Your task to perform on an android device: change alarm snooze length Image 0: 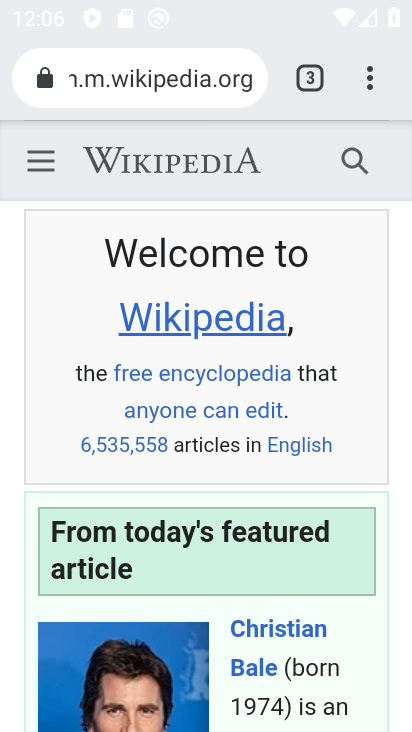
Step 0: press home button
Your task to perform on an android device: change alarm snooze length Image 1: 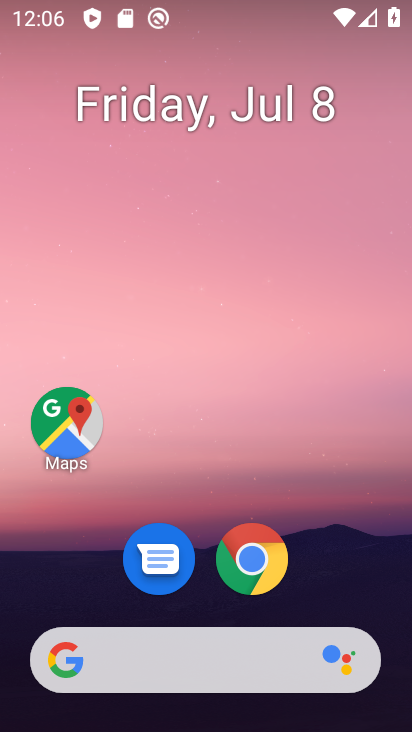
Step 1: drag from (209, 635) to (322, 6)
Your task to perform on an android device: change alarm snooze length Image 2: 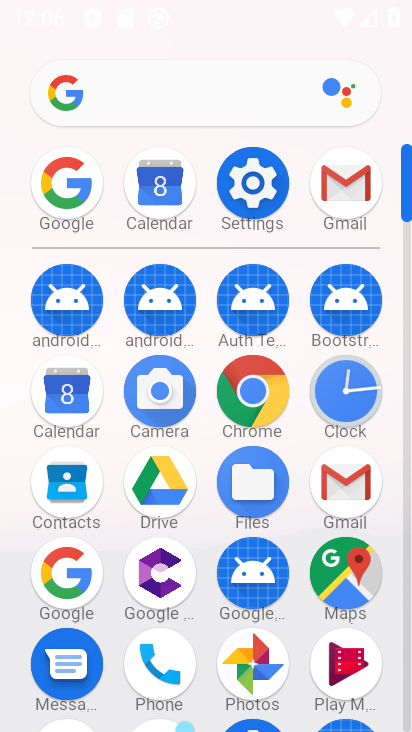
Step 2: click (348, 395)
Your task to perform on an android device: change alarm snooze length Image 3: 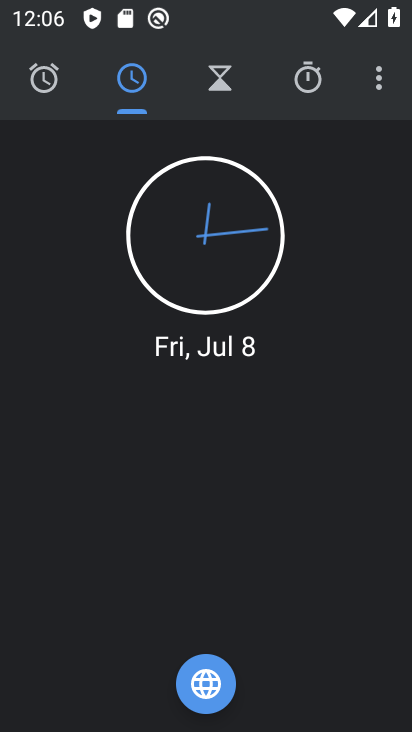
Step 3: click (373, 80)
Your task to perform on an android device: change alarm snooze length Image 4: 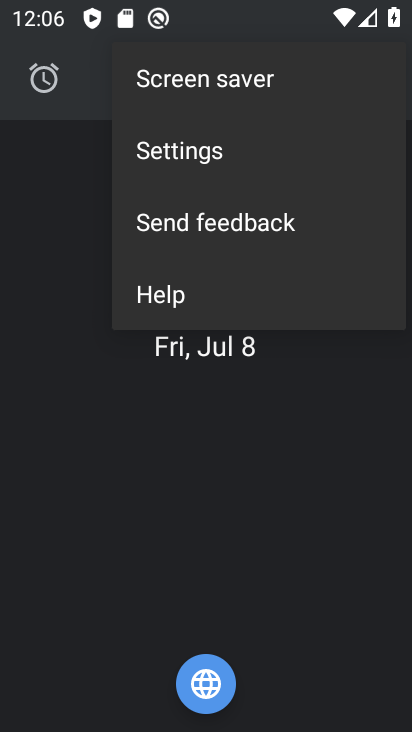
Step 4: click (178, 157)
Your task to perform on an android device: change alarm snooze length Image 5: 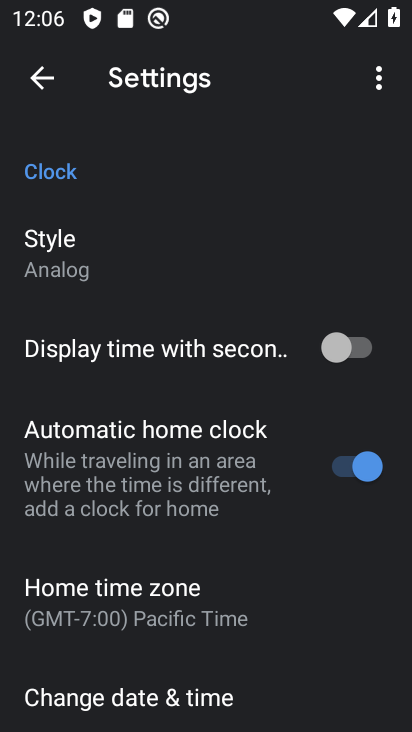
Step 5: drag from (227, 573) to (226, 193)
Your task to perform on an android device: change alarm snooze length Image 6: 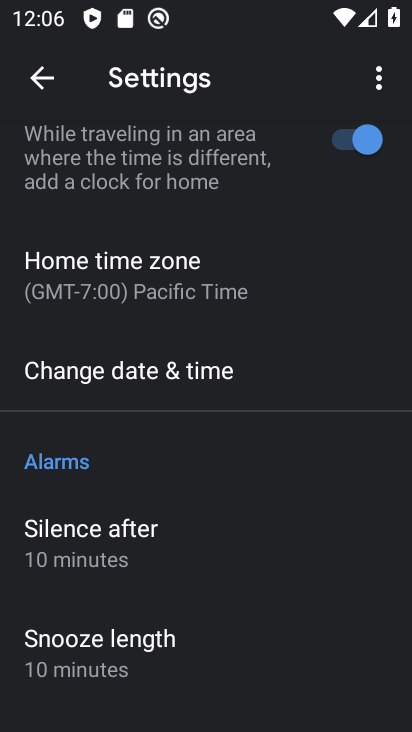
Step 6: click (173, 668)
Your task to perform on an android device: change alarm snooze length Image 7: 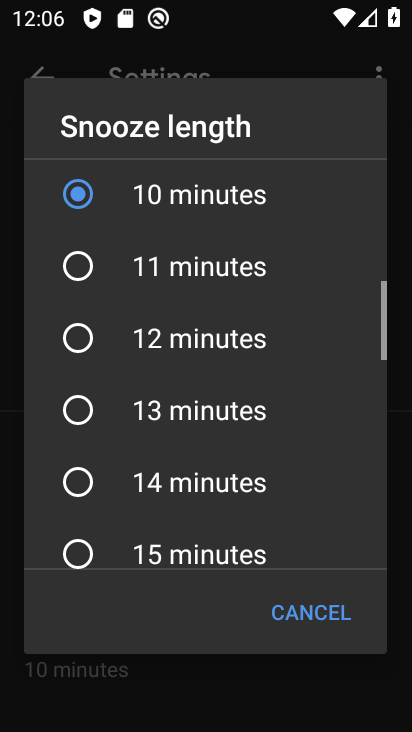
Step 7: click (156, 268)
Your task to perform on an android device: change alarm snooze length Image 8: 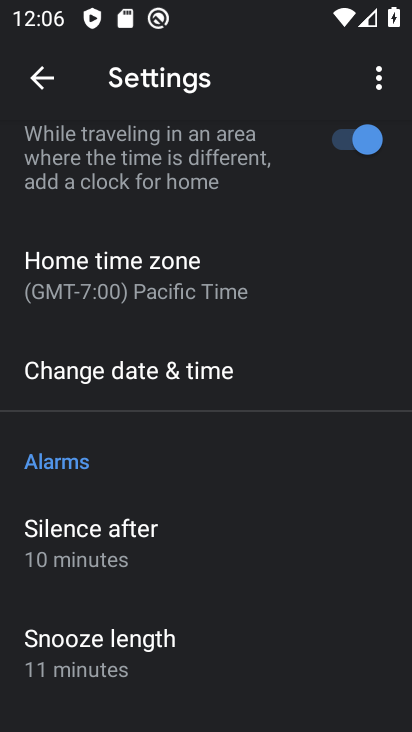
Step 8: task complete